Your task to perform on an android device: turn on priority inbox in the gmail app Image 0: 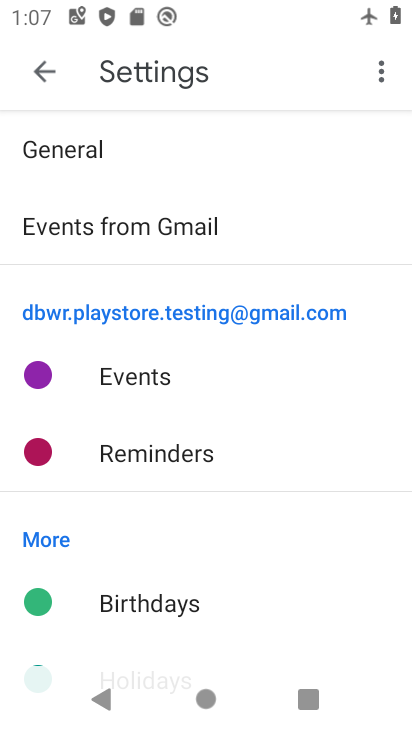
Step 0: press home button
Your task to perform on an android device: turn on priority inbox in the gmail app Image 1: 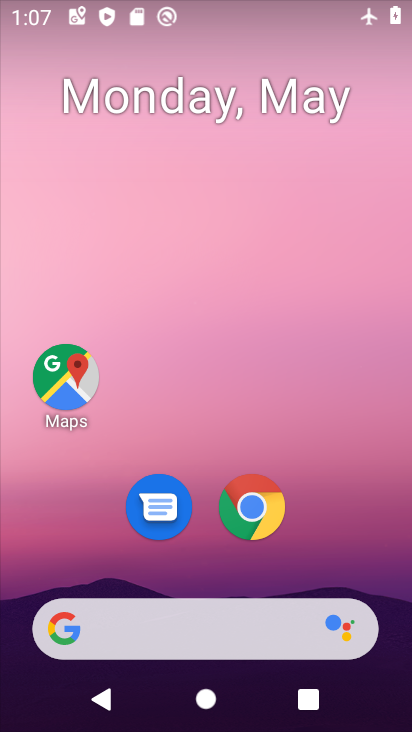
Step 1: drag from (231, 721) to (212, 152)
Your task to perform on an android device: turn on priority inbox in the gmail app Image 2: 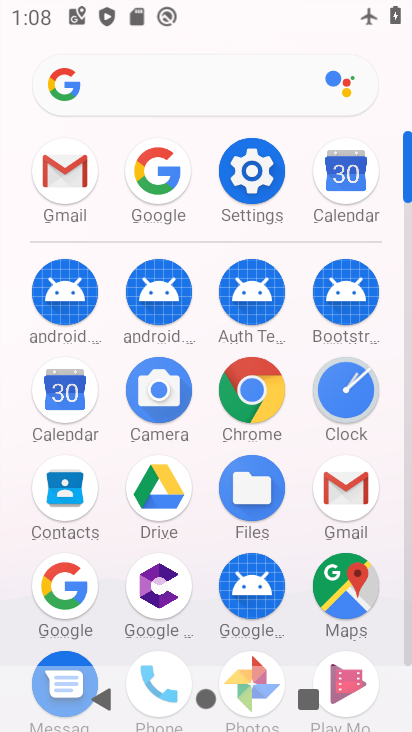
Step 2: click (336, 487)
Your task to perform on an android device: turn on priority inbox in the gmail app Image 3: 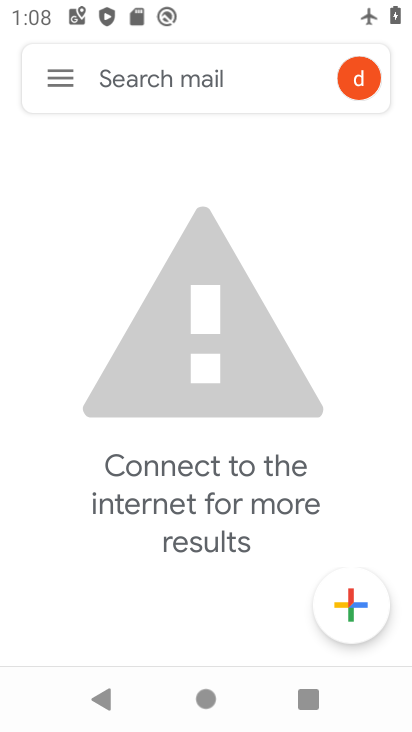
Step 3: click (58, 79)
Your task to perform on an android device: turn on priority inbox in the gmail app Image 4: 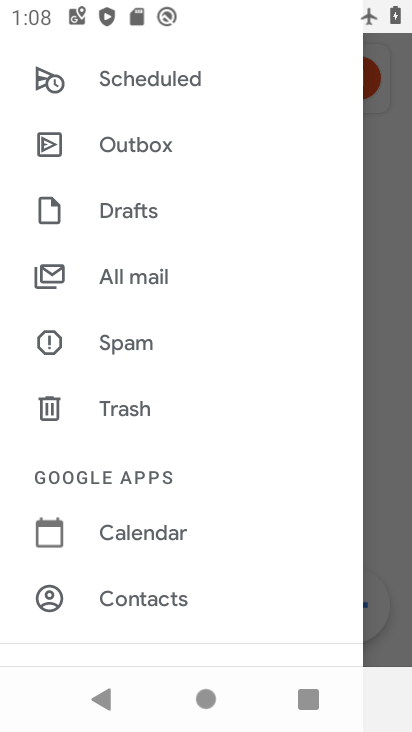
Step 4: drag from (86, 611) to (126, 211)
Your task to perform on an android device: turn on priority inbox in the gmail app Image 5: 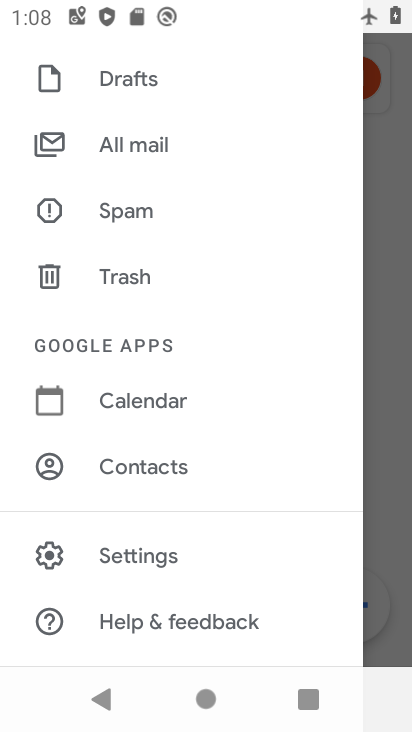
Step 5: click (122, 551)
Your task to perform on an android device: turn on priority inbox in the gmail app Image 6: 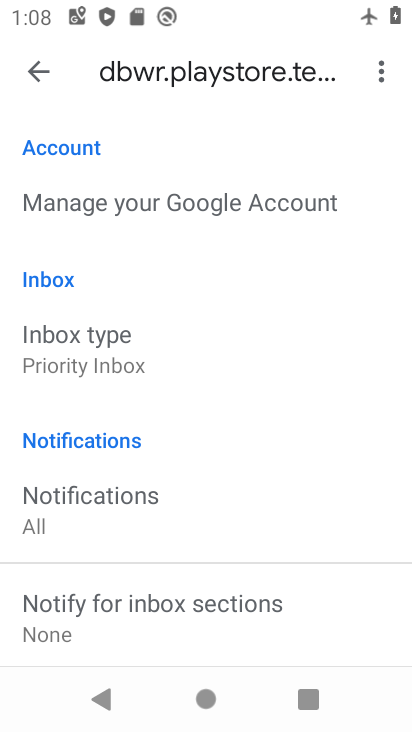
Step 6: task complete